Your task to perform on an android device: Open privacy settings Image 0: 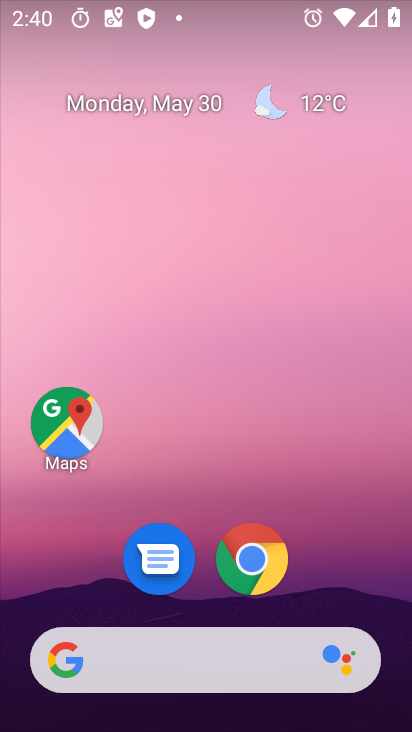
Step 0: drag from (205, 586) to (263, 67)
Your task to perform on an android device: Open privacy settings Image 1: 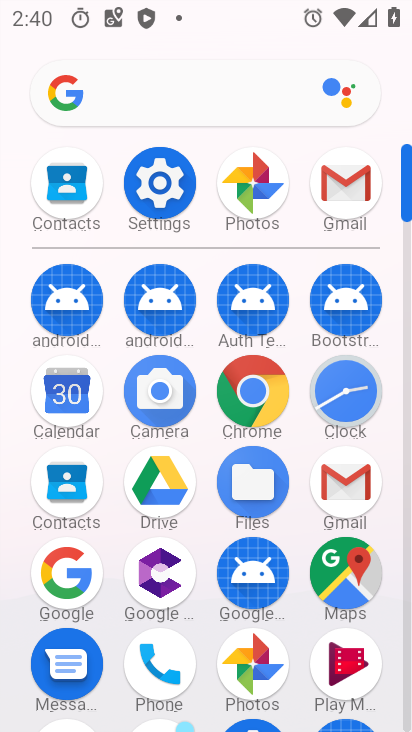
Step 1: click (166, 182)
Your task to perform on an android device: Open privacy settings Image 2: 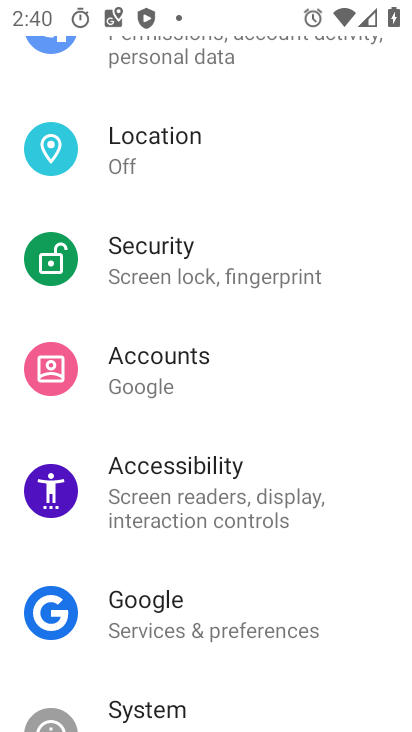
Step 2: drag from (204, 653) to (270, 109)
Your task to perform on an android device: Open privacy settings Image 3: 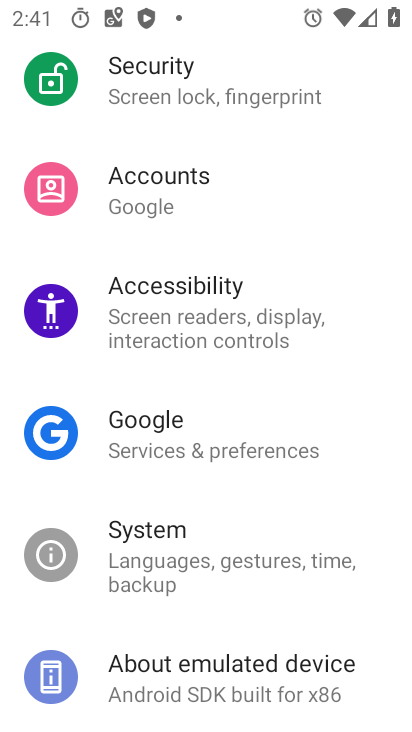
Step 3: drag from (262, 199) to (258, 716)
Your task to perform on an android device: Open privacy settings Image 4: 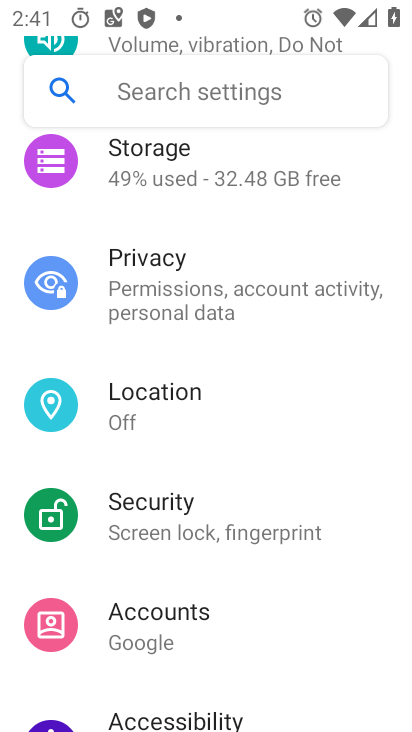
Step 4: click (169, 296)
Your task to perform on an android device: Open privacy settings Image 5: 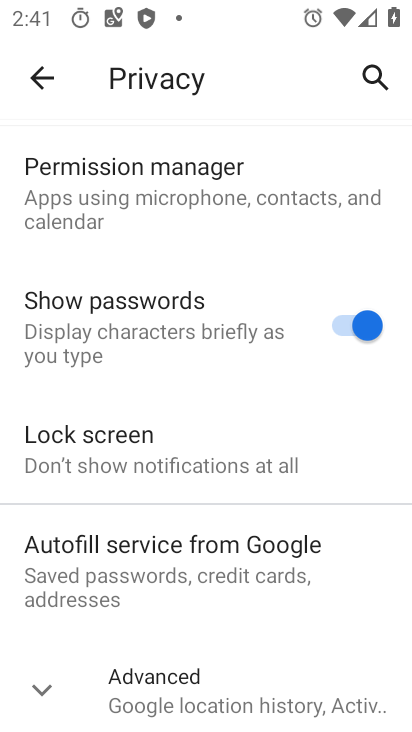
Step 5: task complete